Your task to perform on an android device: toggle wifi Image 0: 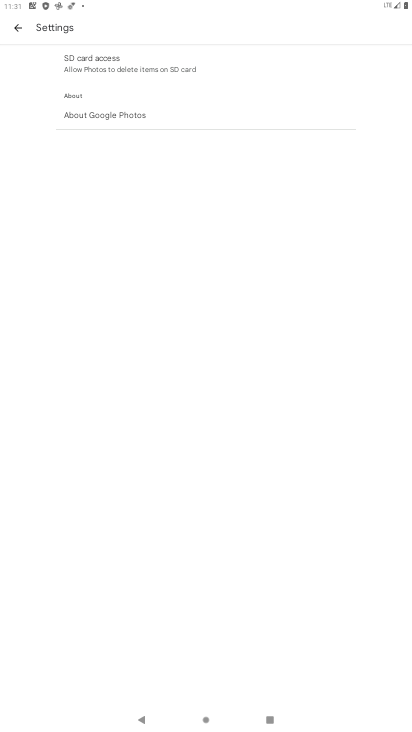
Step 0: click (17, 23)
Your task to perform on an android device: toggle wifi Image 1: 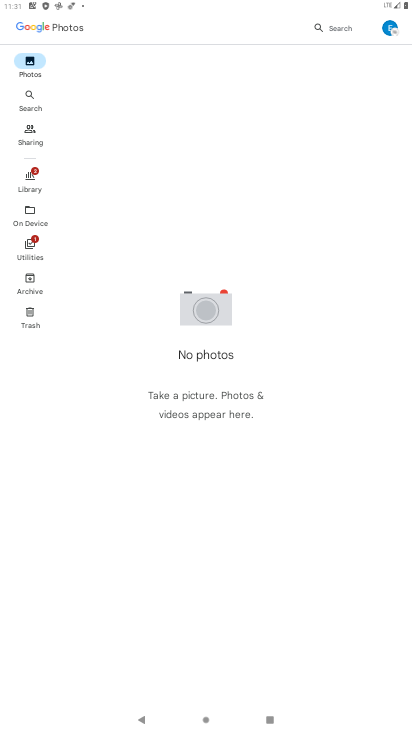
Step 1: press home button
Your task to perform on an android device: toggle wifi Image 2: 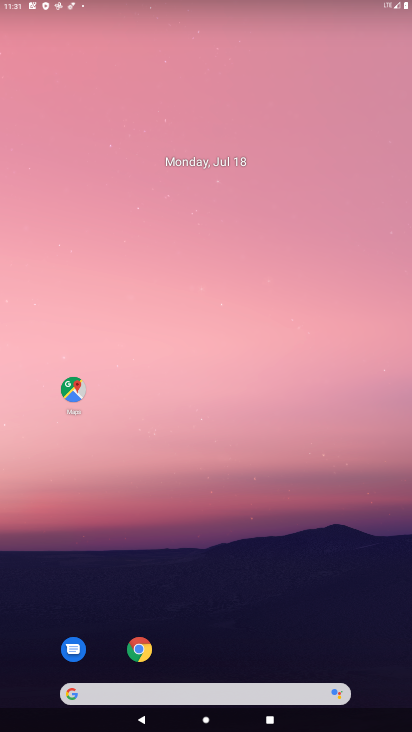
Step 2: drag from (252, 721) to (238, 82)
Your task to perform on an android device: toggle wifi Image 3: 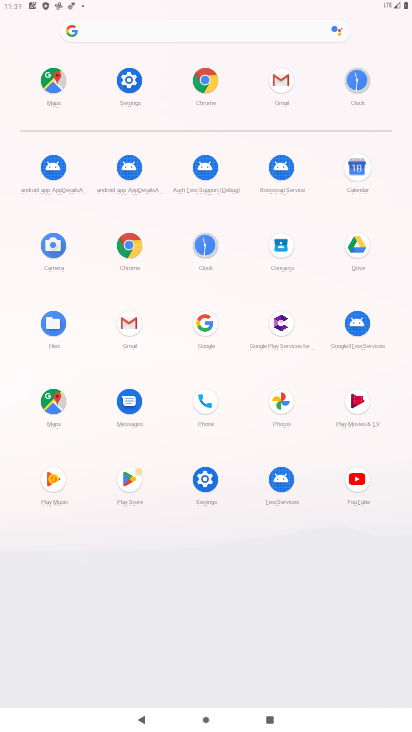
Step 3: click (139, 79)
Your task to perform on an android device: toggle wifi Image 4: 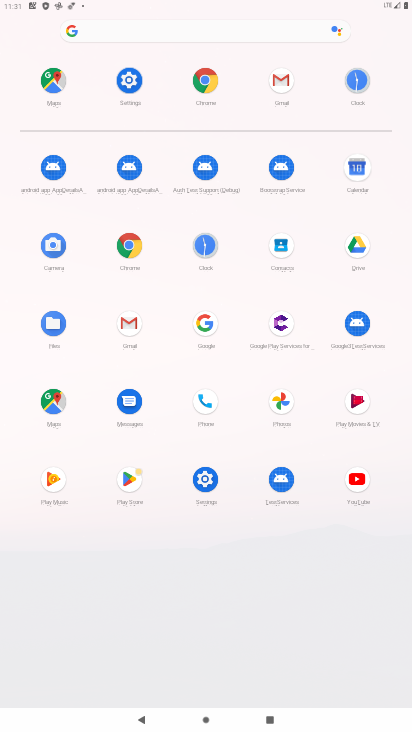
Step 4: click (139, 79)
Your task to perform on an android device: toggle wifi Image 5: 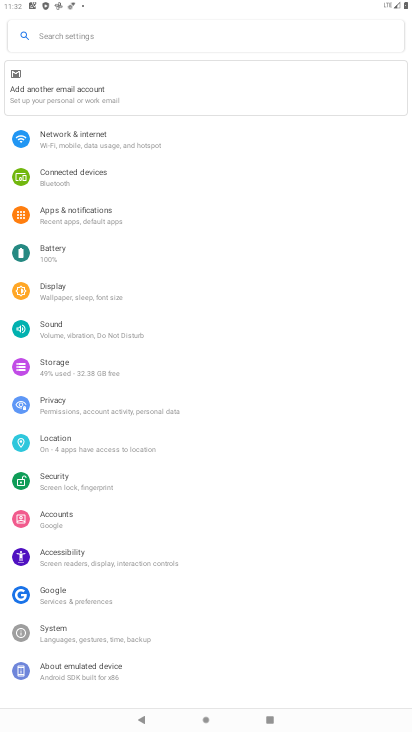
Step 5: click (154, 138)
Your task to perform on an android device: toggle wifi Image 6: 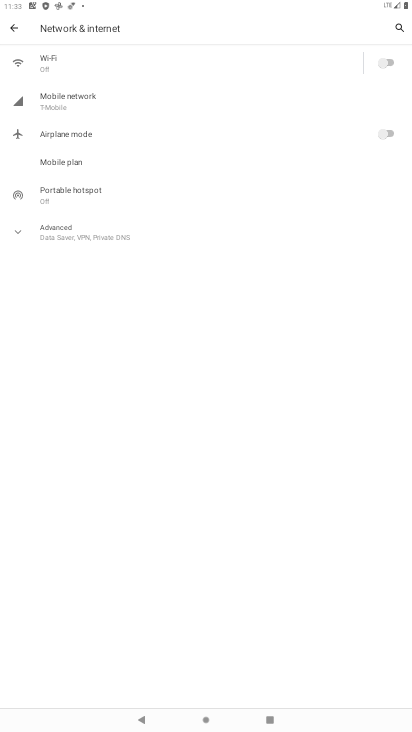
Step 6: click (393, 63)
Your task to perform on an android device: toggle wifi Image 7: 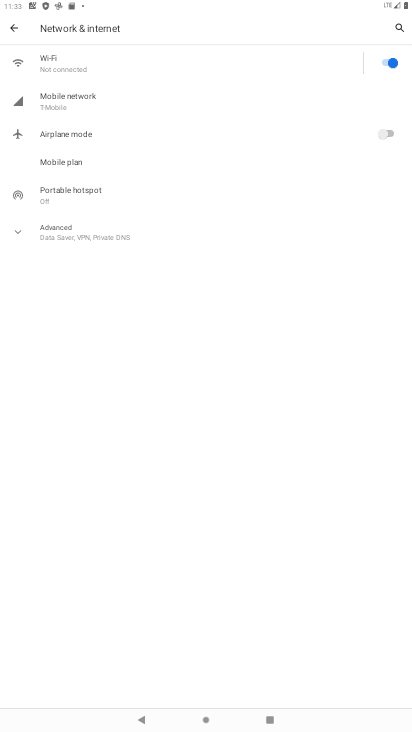
Step 7: task complete